Your task to perform on an android device: toggle location history Image 0: 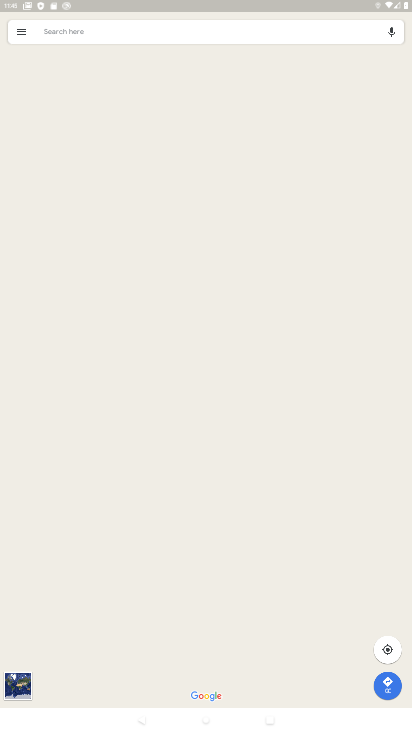
Step 0: press home button
Your task to perform on an android device: toggle location history Image 1: 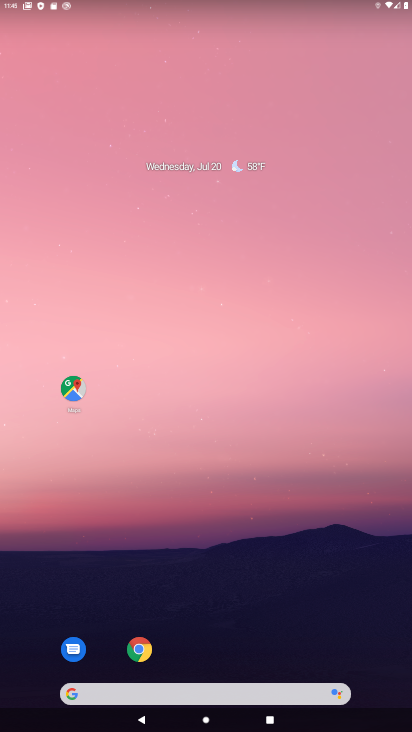
Step 1: drag from (320, 186) to (330, 95)
Your task to perform on an android device: toggle location history Image 2: 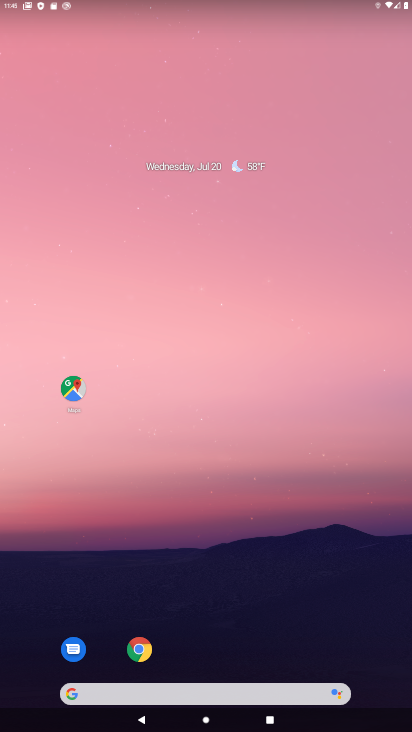
Step 2: drag from (217, 648) to (216, 87)
Your task to perform on an android device: toggle location history Image 3: 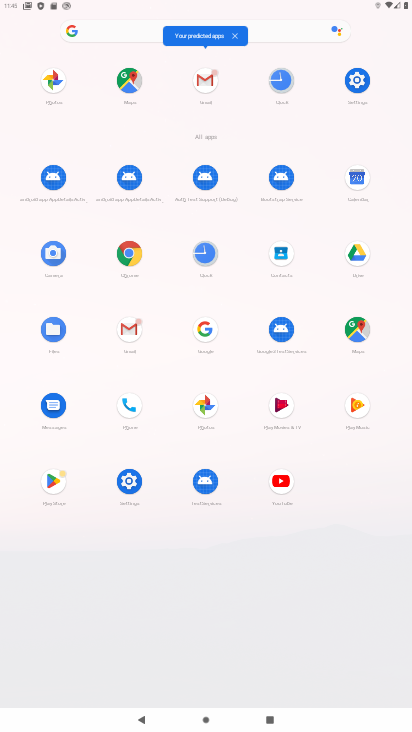
Step 3: click (131, 487)
Your task to perform on an android device: toggle location history Image 4: 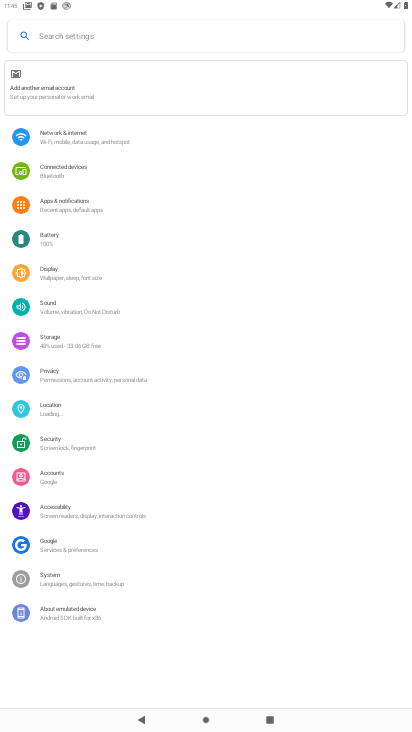
Step 4: click (56, 417)
Your task to perform on an android device: toggle location history Image 5: 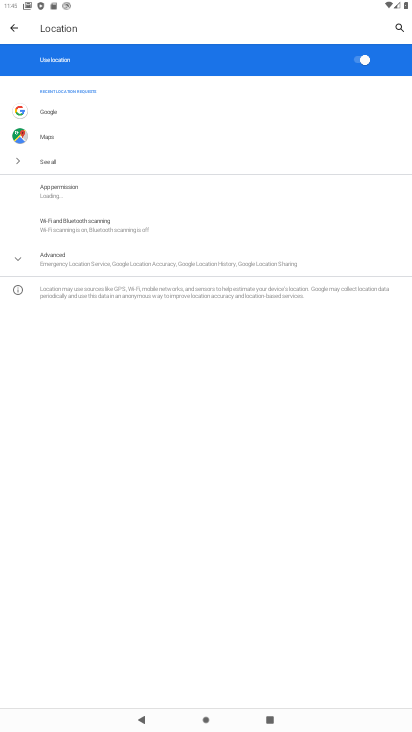
Step 5: click (66, 252)
Your task to perform on an android device: toggle location history Image 6: 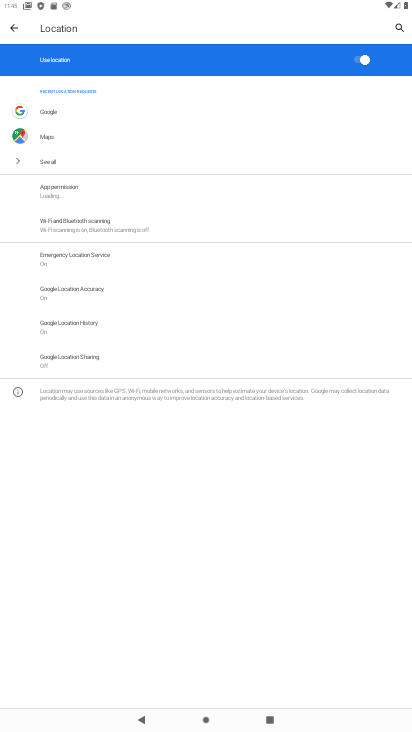
Step 6: click (101, 318)
Your task to perform on an android device: toggle location history Image 7: 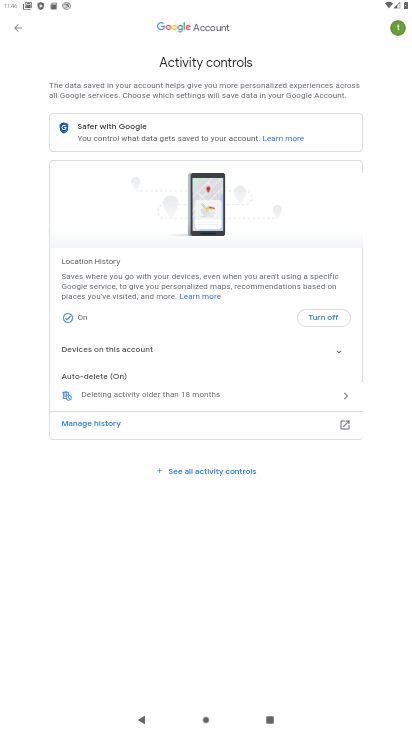
Step 7: click (316, 323)
Your task to perform on an android device: toggle location history Image 8: 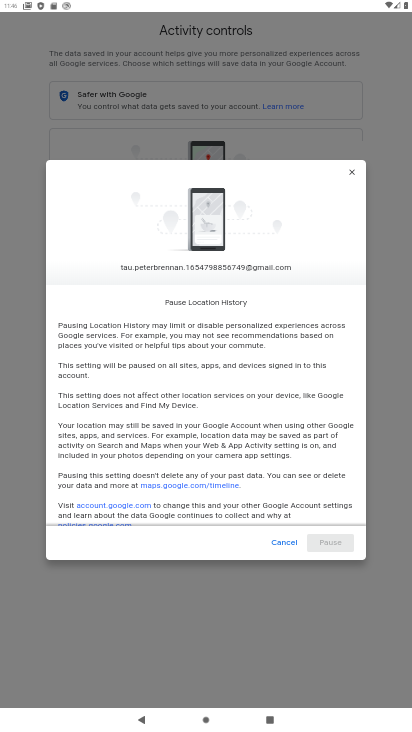
Step 8: drag from (309, 502) to (292, 270)
Your task to perform on an android device: toggle location history Image 9: 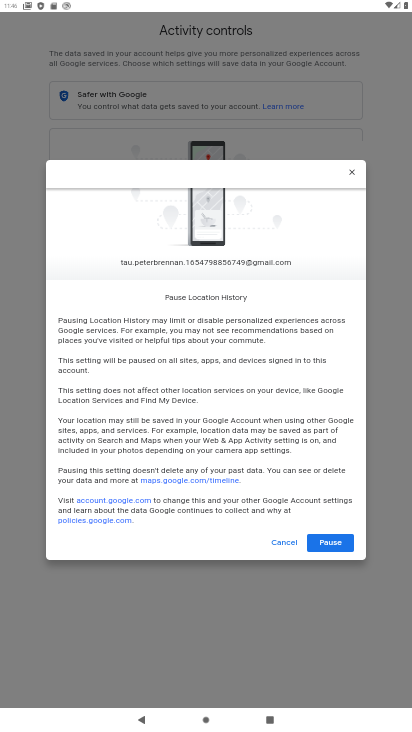
Step 9: click (334, 545)
Your task to perform on an android device: toggle location history Image 10: 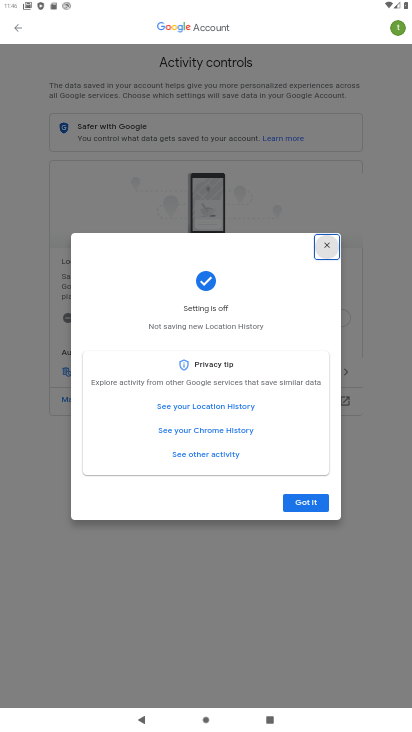
Step 10: click (299, 499)
Your task to perform on an android device: toggle location history Image 11: 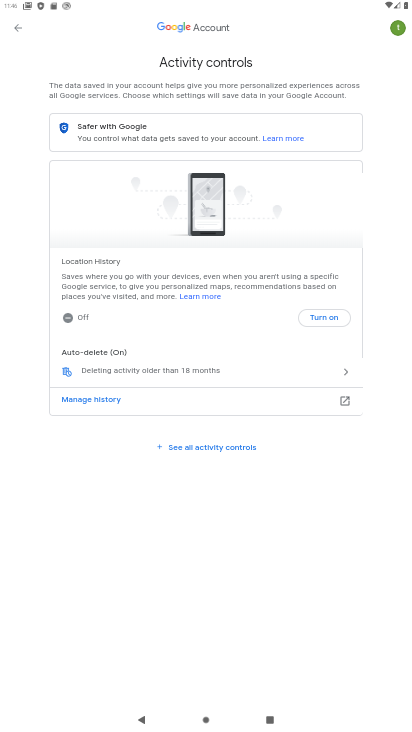
Step 11: task complete